Your task to perform on an android device: Look up the top rated headphones on Amazon. Image 0: 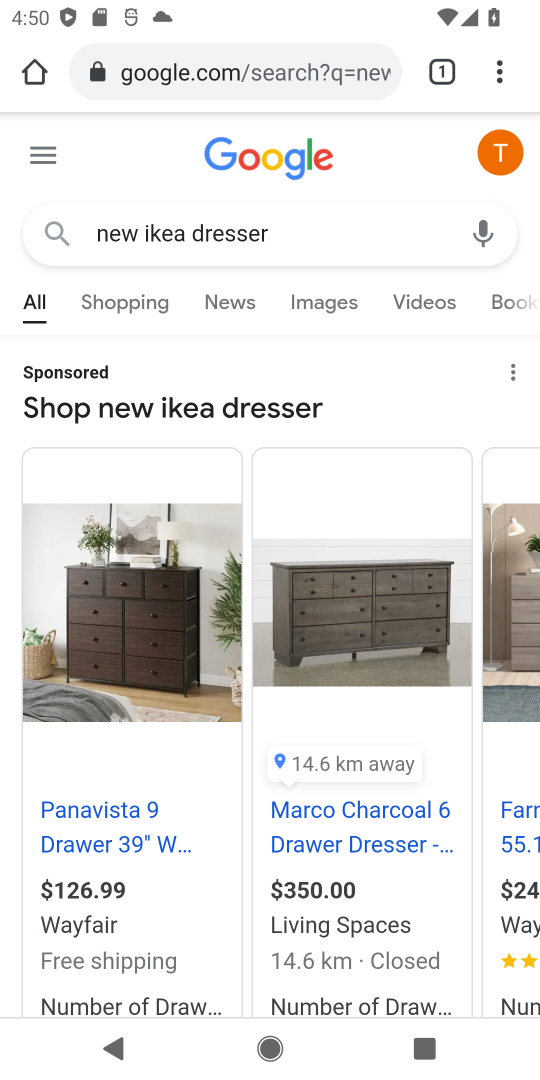
Step 0: press home button
Your task to perform on an android device: Look up the top rated headphones on Amazon. Image 1: 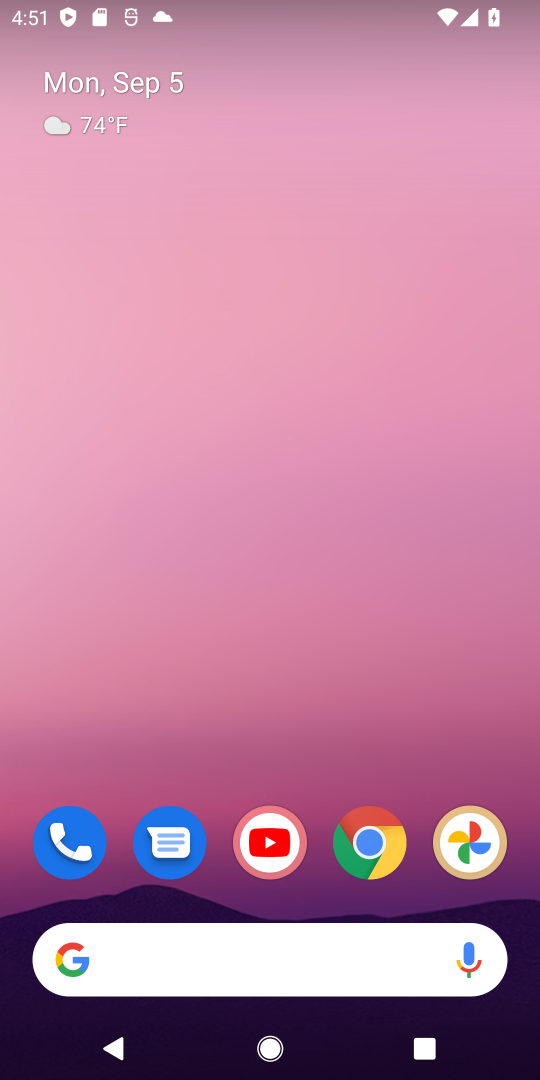
Step 1: click (371, 844)
Your task to perform on an android device: Look up the top rated headphones on Amazon. Image 2: 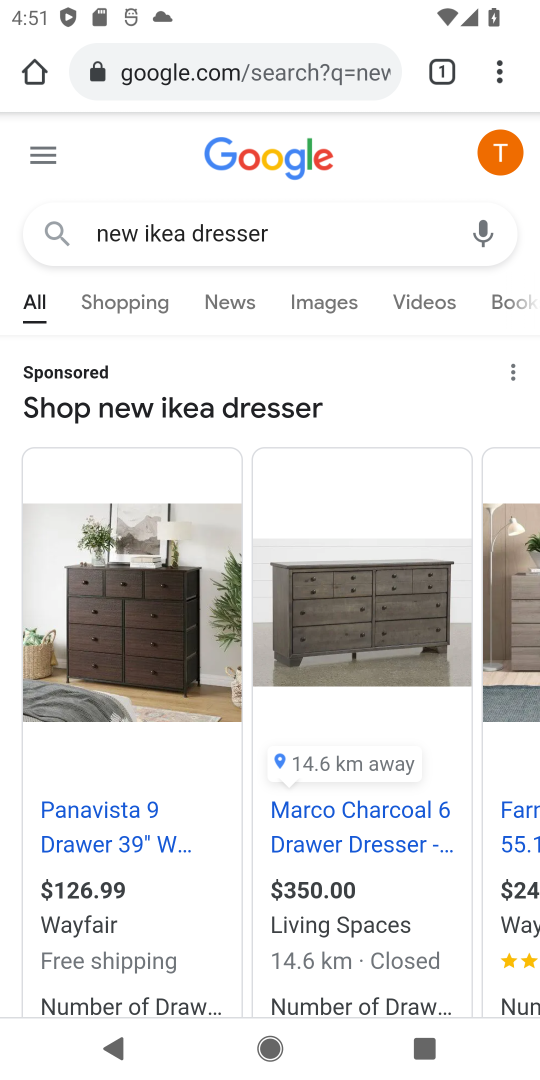
Step 2: click (365, 78)
Your task to perform on an android device: Look up the top rated headphones on Amazon. Image 3: 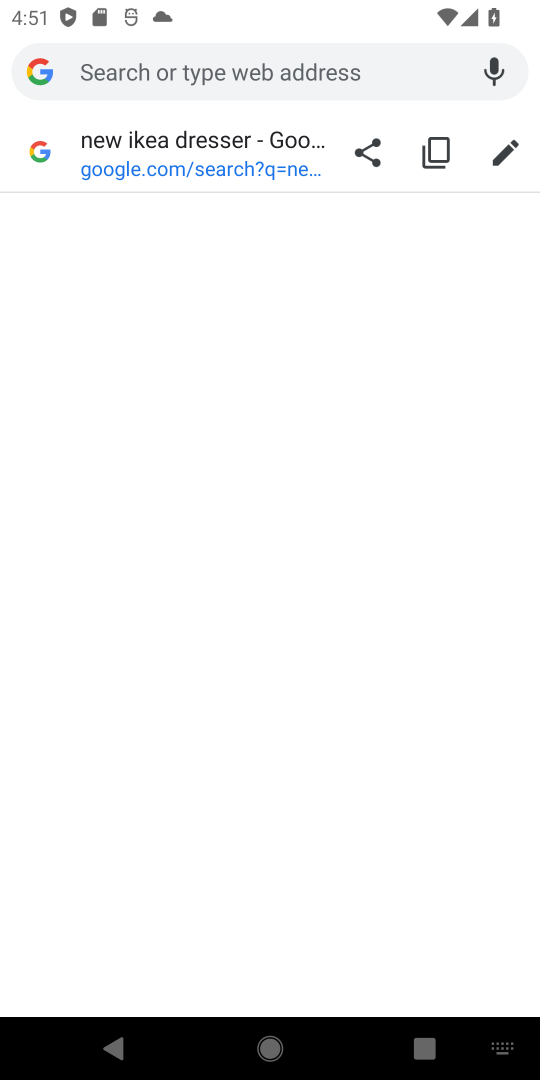
Step 3: type "Amazon"
Your task to perform on an android device: Look up the top rated headphones on Amazon. Image 4: 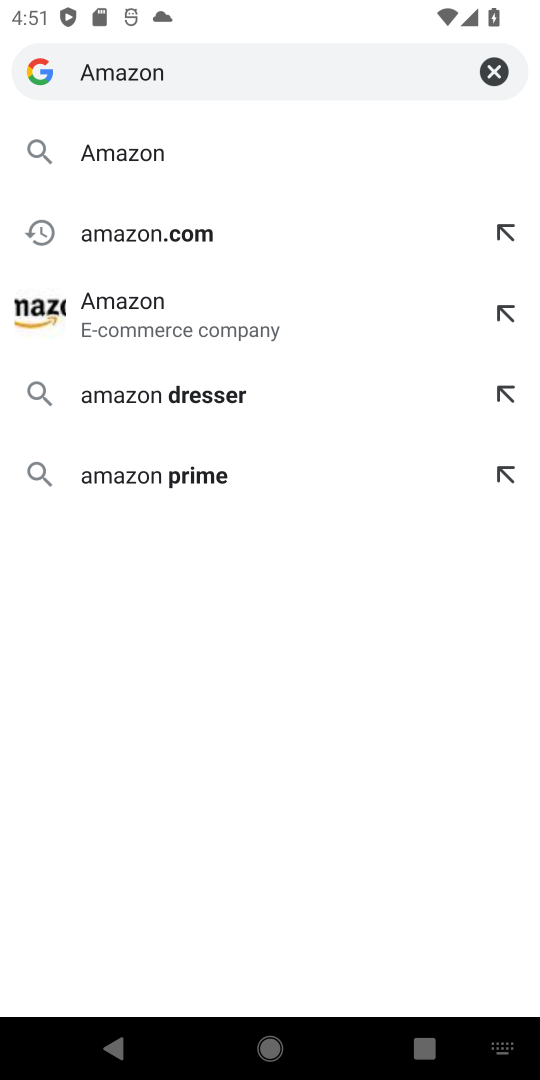
Step 4: click (149, 161)
Your task to perform on an android device: Look up the top rated headphones on Amazon. Image 5: 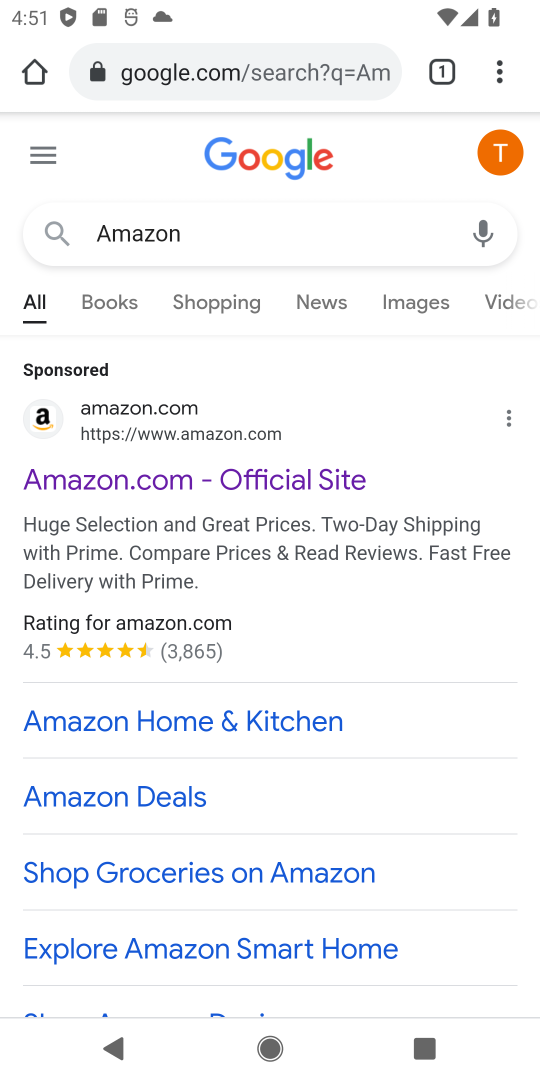
Step 5: drag from (258, 798) to (347, 494)
Your task to perform on an android device: Look up the top rated headphones on Amazon. Image 6: 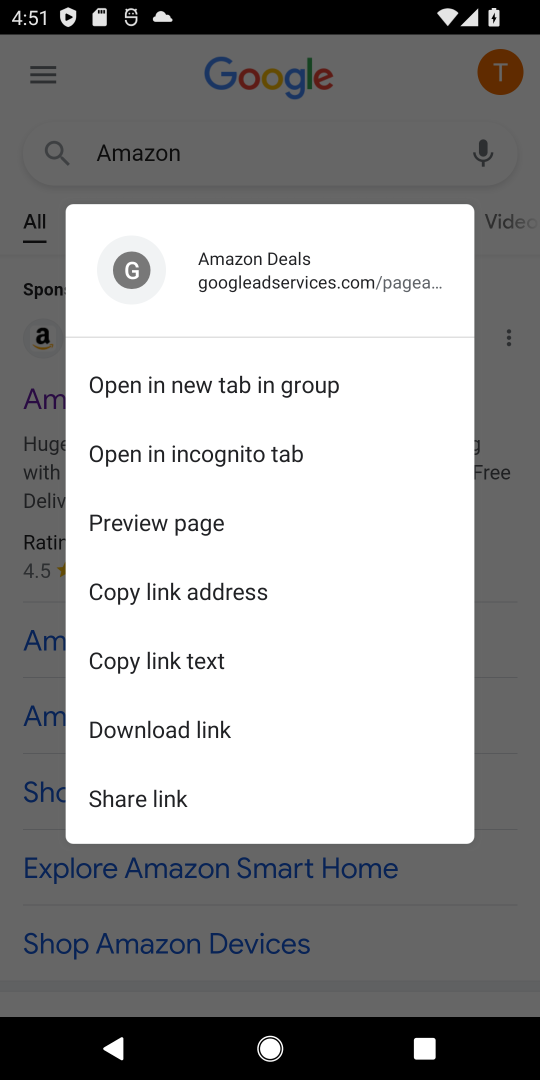
Step 6: click (364, 92)
Your task to perform on an android device: Look up the top rated headphones on Amazon. Image 7: 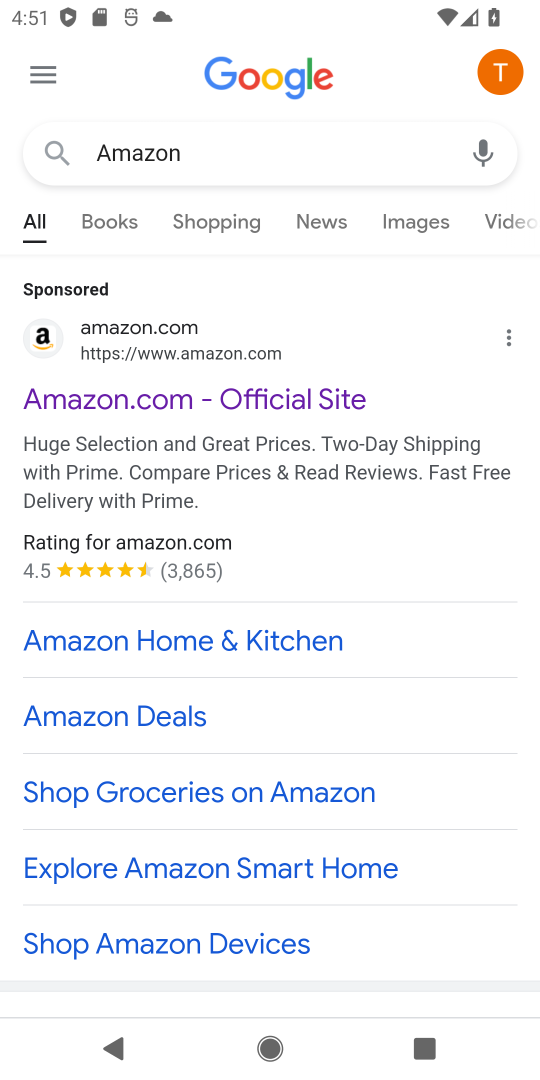
Step 7: drag from (338, 947) to (333, 599)
Your task to perform on an android device: Look up the top rated headphones on Amazon. Image 8: 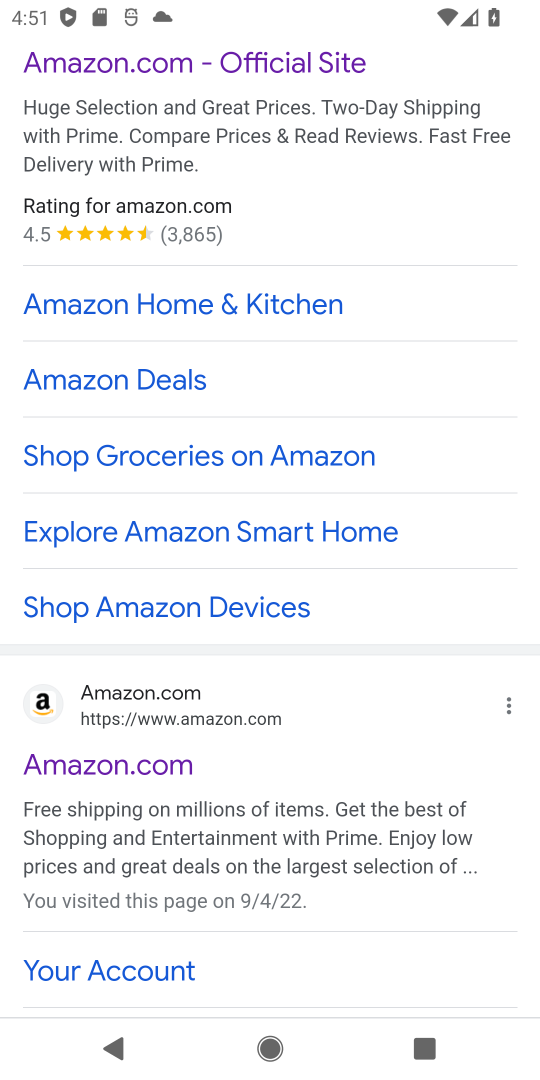
Step 8: click (173, 764)
Your task to perform on an android device: Look up the top rated headphones on Amazon. Image 9: 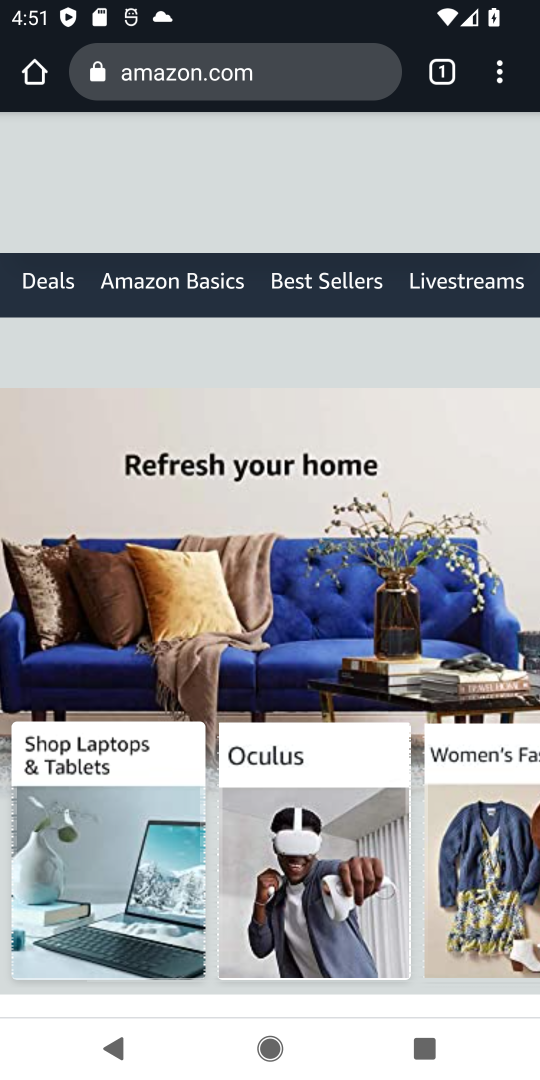
Step 9: click (210, 225)
Your task to perform on an android device: Look up the top rated headphones on Amazon. Image 10: 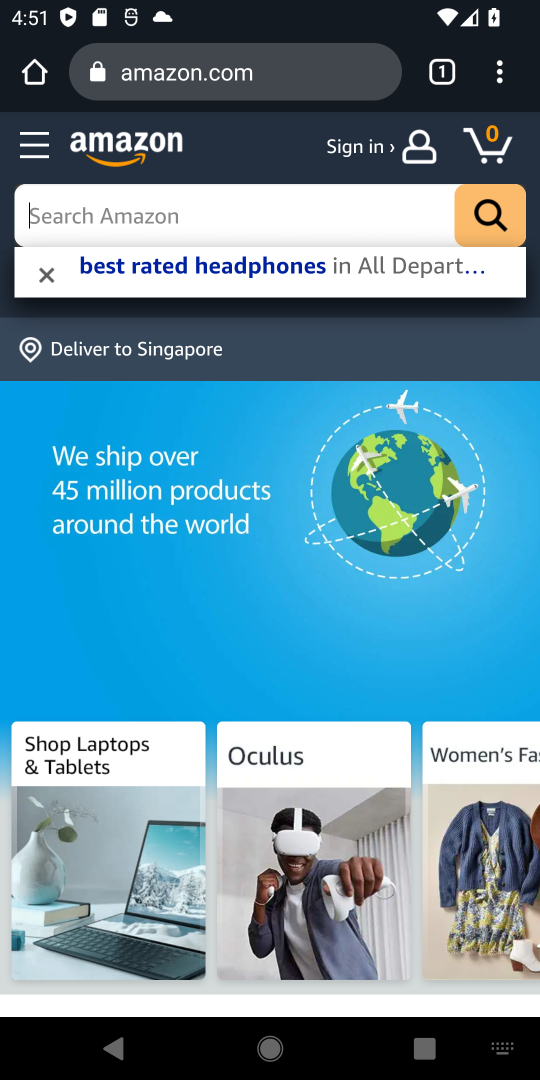
Step 10: click (218, 214)
Your task to perform on an android device: Look up the top rated headphones on Amazon. Image 11: 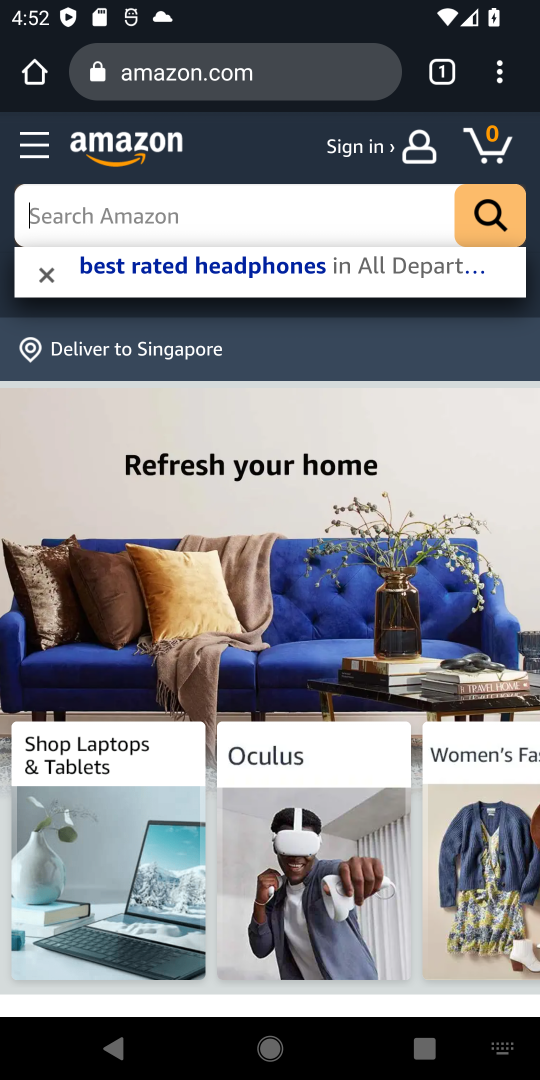
Step 11: type "top rated headphones"
Your task to perform on an android device: Look up the top rated headphones on Amazon. Image 12: 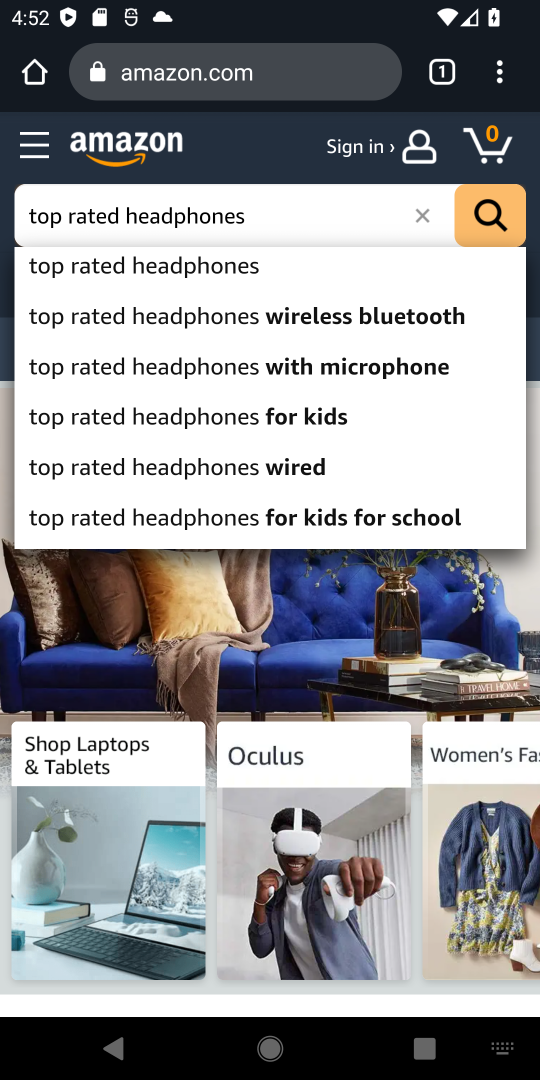
Step 12: click (497, 210)
Your task to perform on an android device: Look up the top rated headphones on Amazon. Image 13: 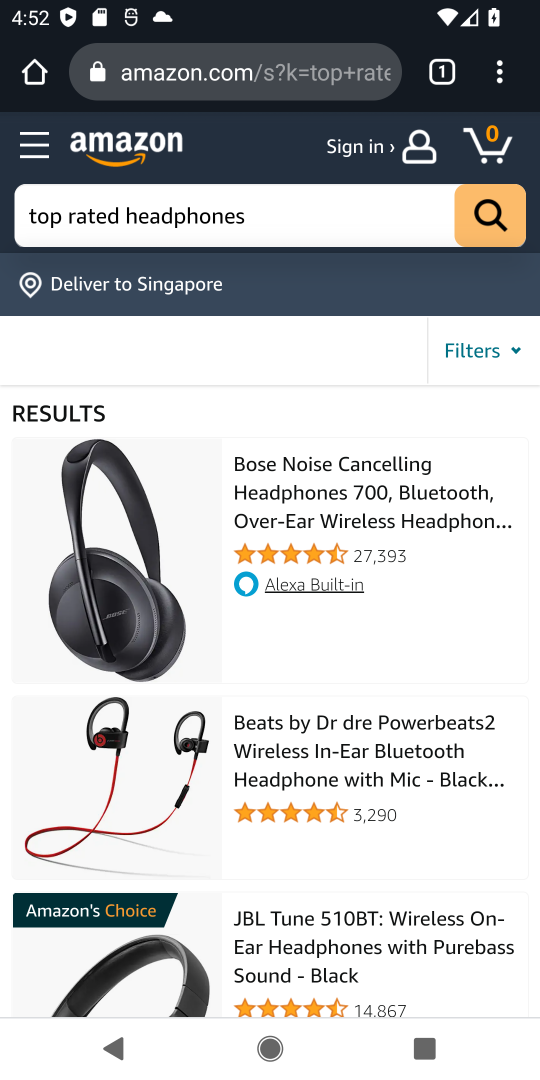
Step 13: task complete